Your task to perform on an android device: Go to accessibility settings Image 0: 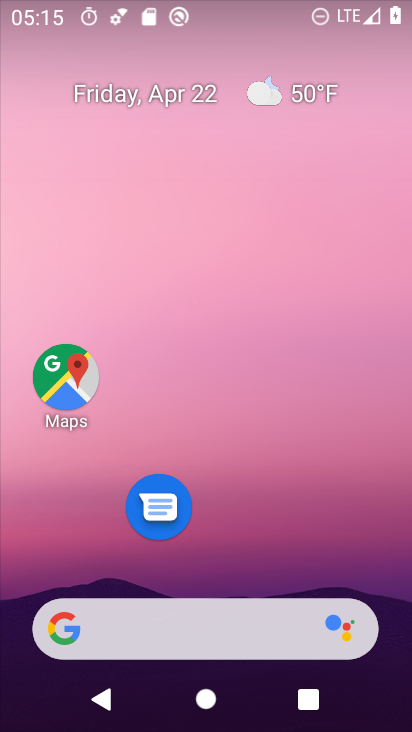
Step 0: drag from (228, 411) to (314, 92)
Your task to perform on an android device: Go to accessibility settings Image 1: 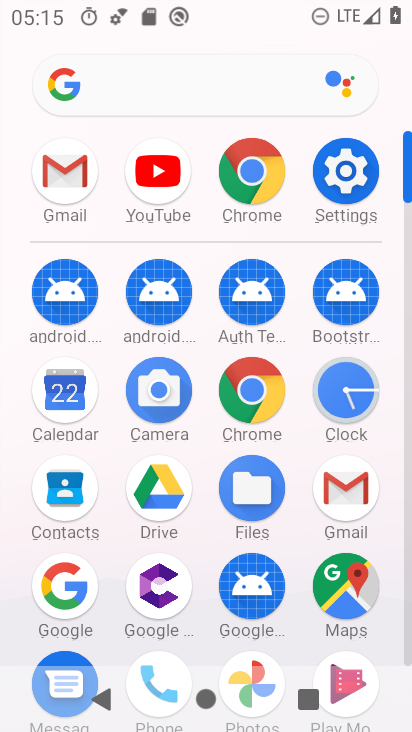
Step 1: click (345, 150)
Your task to perform on an android device: Go to accessibility settings Image 2: 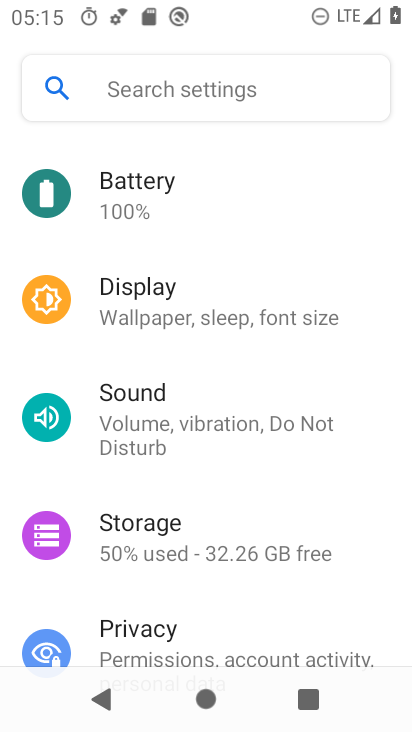
Step 2: drag from (217, 578) to (317, 80)
Your task to perform on an android device: Go to accessibility settings Image 3: 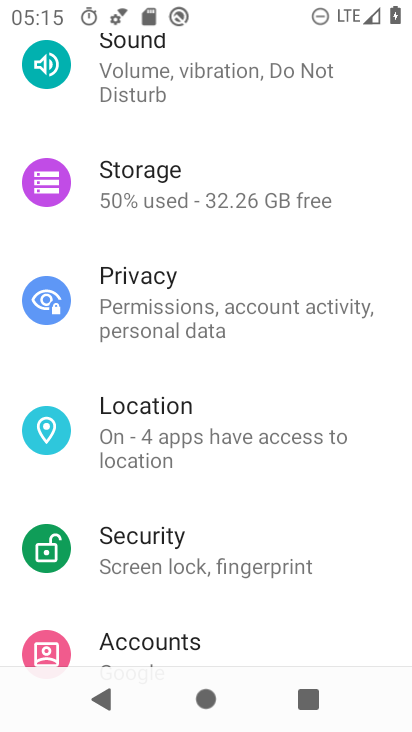
Step 3: drag from (173, 594) to (333, 29)
Your task to perform on an android device: Go to accessibility settings Image 4: 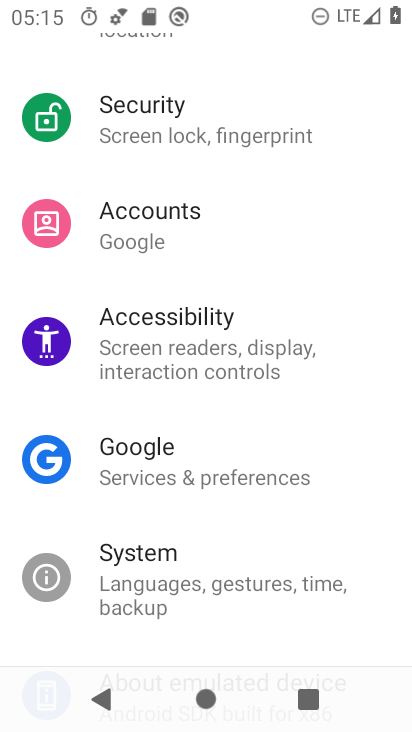
Step 4: click (144, 380)
Your task to perform on an android device: Go to accessibility settings Image 5: 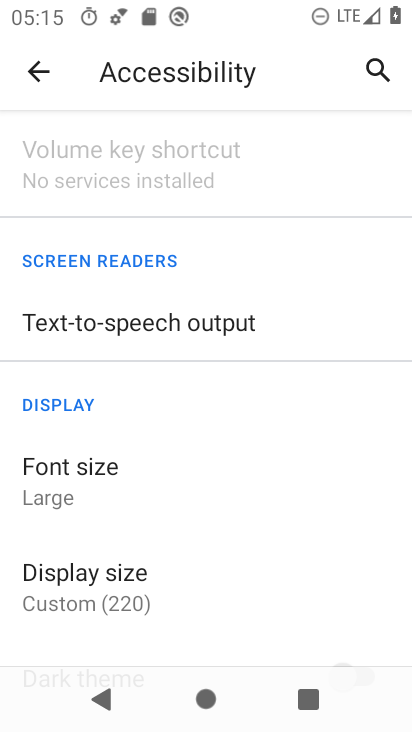
Step 5: task complete